Your task to perform on an android device: change timer sound Image 0: 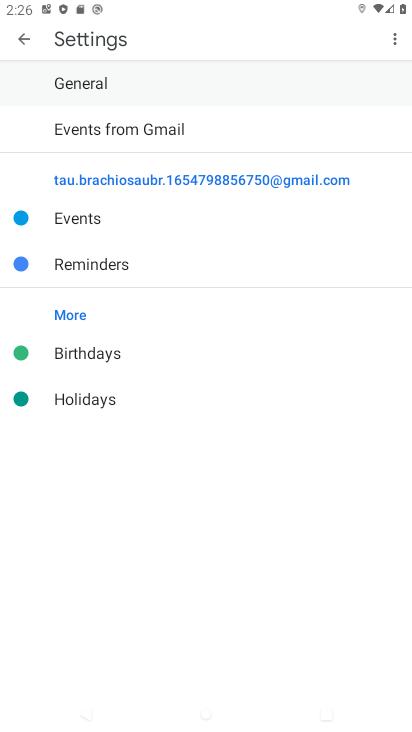
Step 0: press home button
Your task to perform on an android device: change timer sound Image 1: 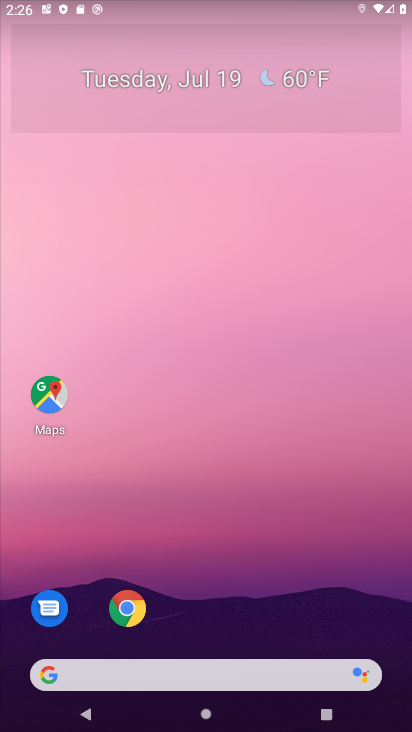
Step 1: drag from (271, 545) to (316, 36)
Your task to perform on an android device: change timer sound Image 2: 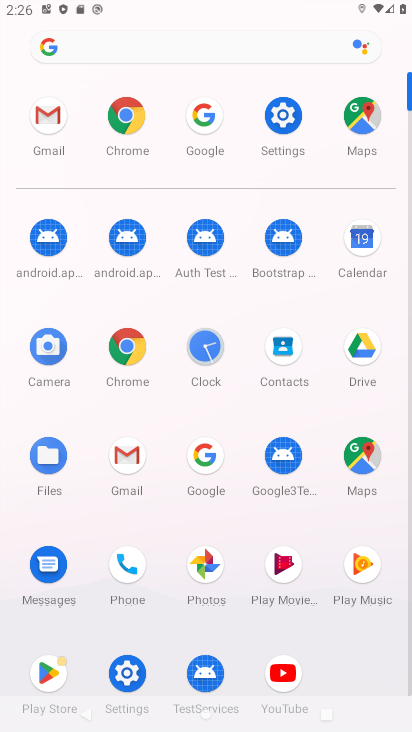
Step 2: click (208, 343)
Your task to perform on an android device: change timer sound Image 3: 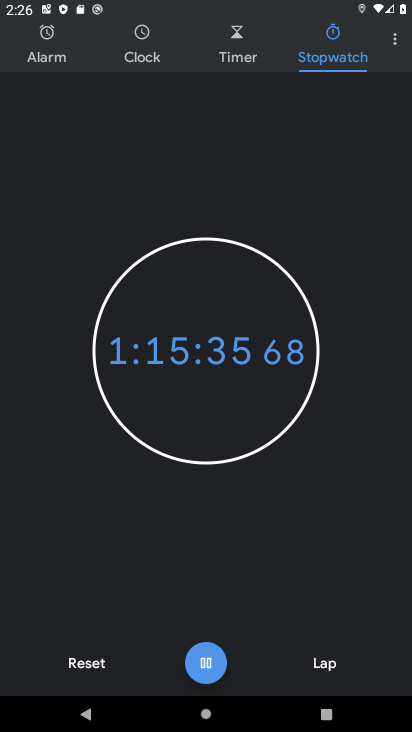
Step 3: click (393, 35)
Your task to perform on an android device: change timer sound Image 4: 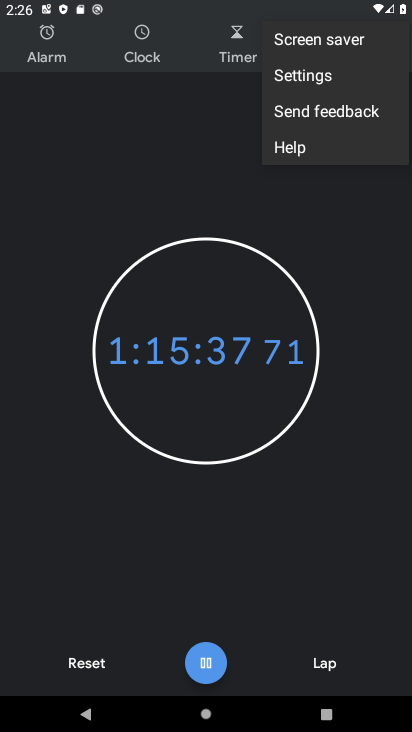
Step 4: click (293, 77)
Your task to perform on an android device: change timer sound Image 5: 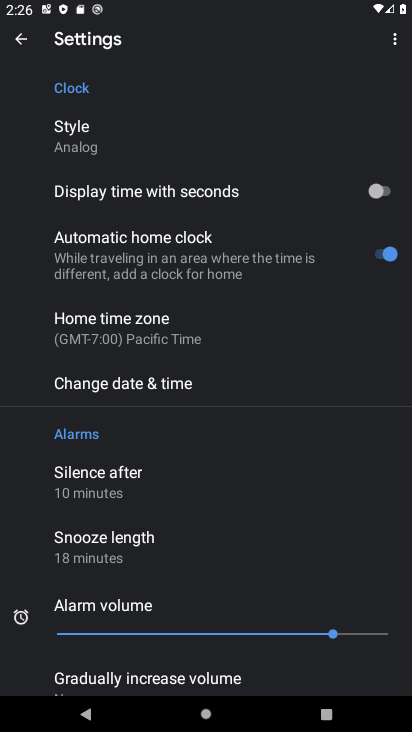
Step 5: drag from (152, 564) to (243, 136)
Your task to perform on an android device: change timer sound Image 6: 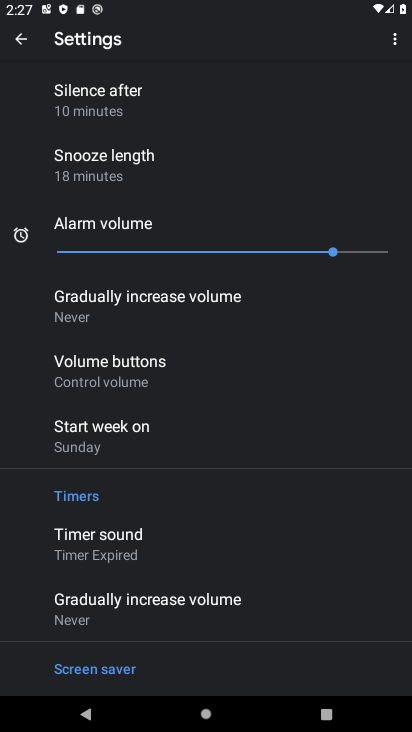
Step 6: click (115, 545)
Your task to perform on an android device: change timer sound Image 7: 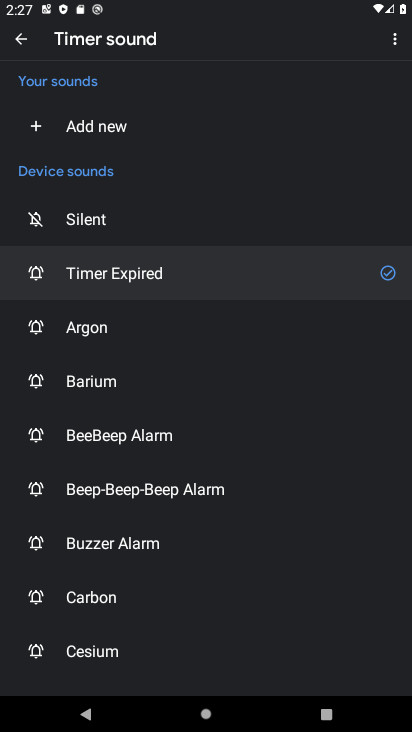
Step 7: click (46, 447)
Your task to perform on an android device: change timer sound Image 8: 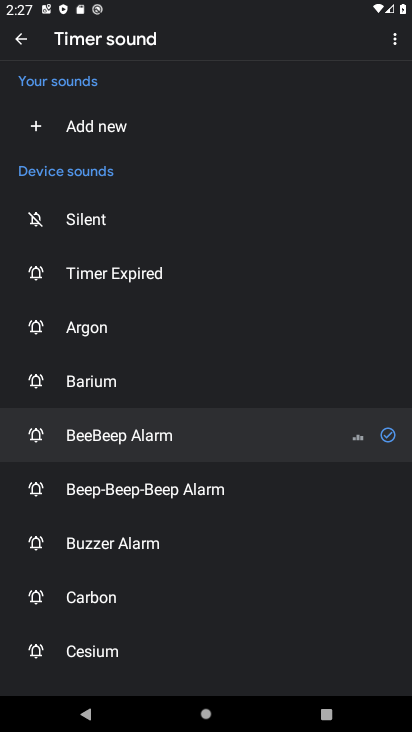
Step 8: task complete